Your task to perform on an android device: open a new tab in the chrome app Image 0: 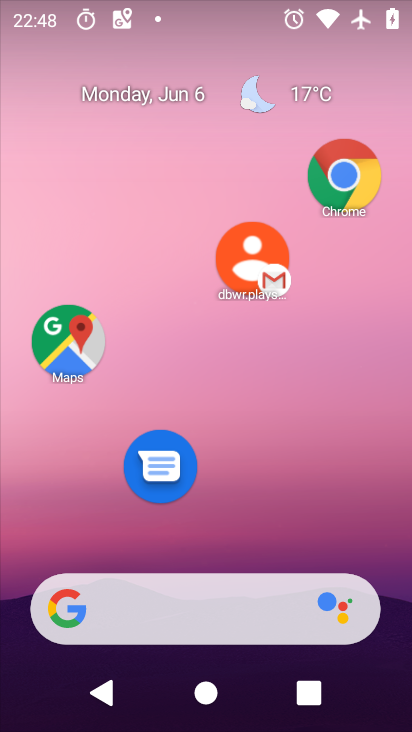
Step 0: drag from (206, 501) to (235, 19)
Your task to perform on an android device: open a new tab in the chrome app Image 1: 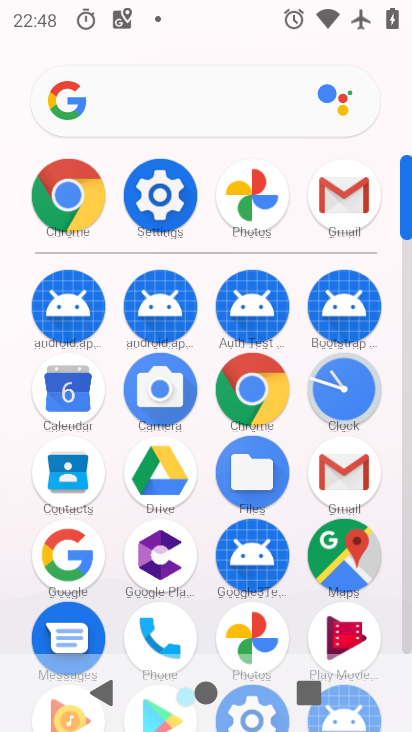
Step 1: click (253, 375)
Your task to perform on an android device: open a new tab in the chrome app Image 2: 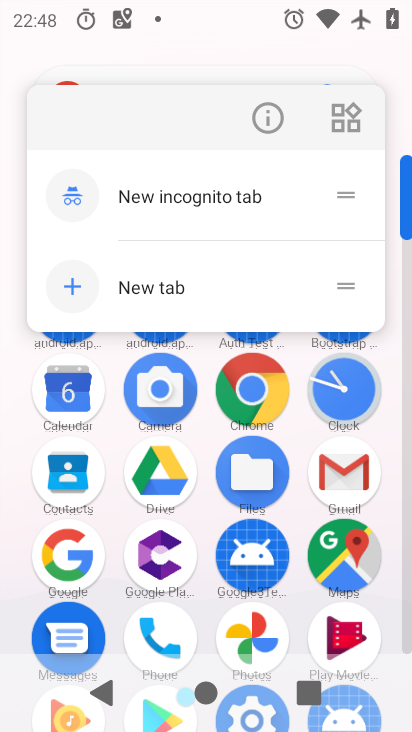
Step 2: click (243, 108)
Your task to perform on an android device: open a new tab in the chrome app Image 3: 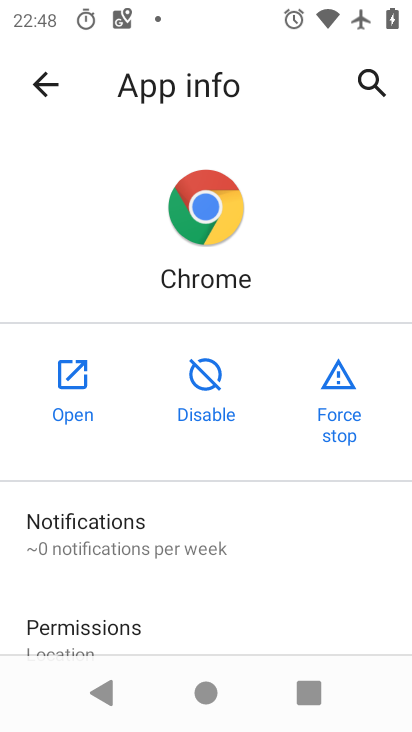
Step 3: click (73, 377)
Your task to perform on an android device: open a new tab in the chrome app Image 4: 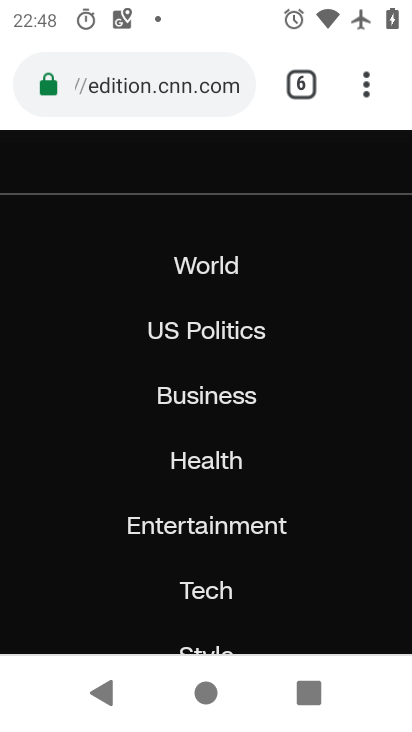
Step 4: drag from (303, 120) to (274, 723)
Your task to perform on an android device: open a new tab in the chrome app Image 5: 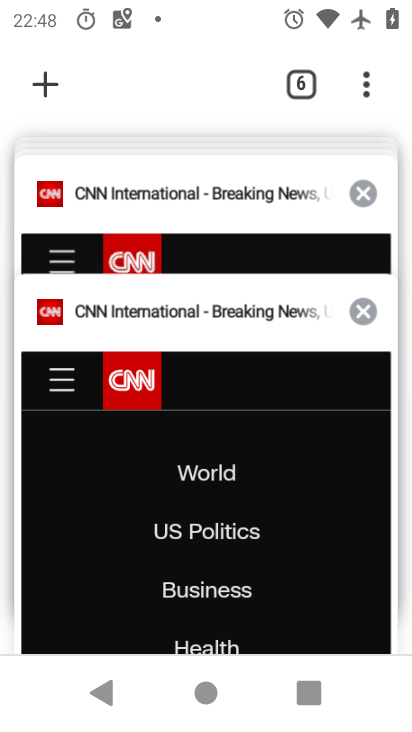
Step 5: click (234, 381)
Your task to perform on an android device: open a new tab in the chrome app Image 6: 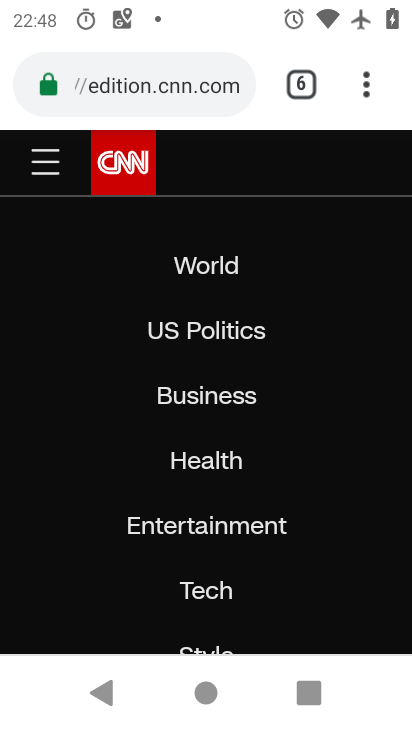
Step 6: task complete